Your task to perform on an android device: choose inbox layout in the gmail app Image 0: 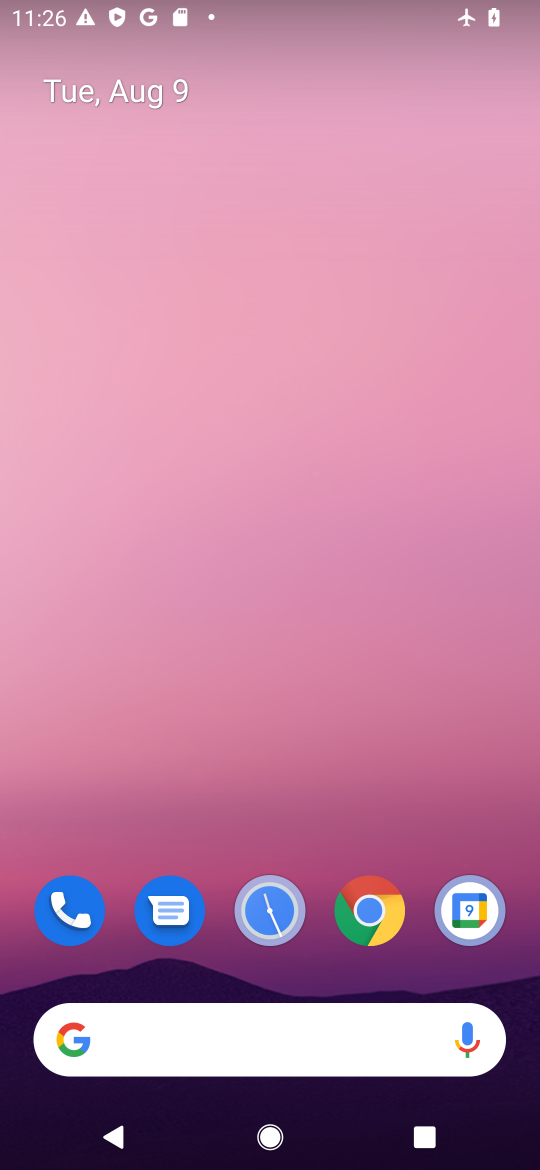
Step 0: press home button
Your task to perform on an android device: choose inbox layout in the gmail app Image 1: 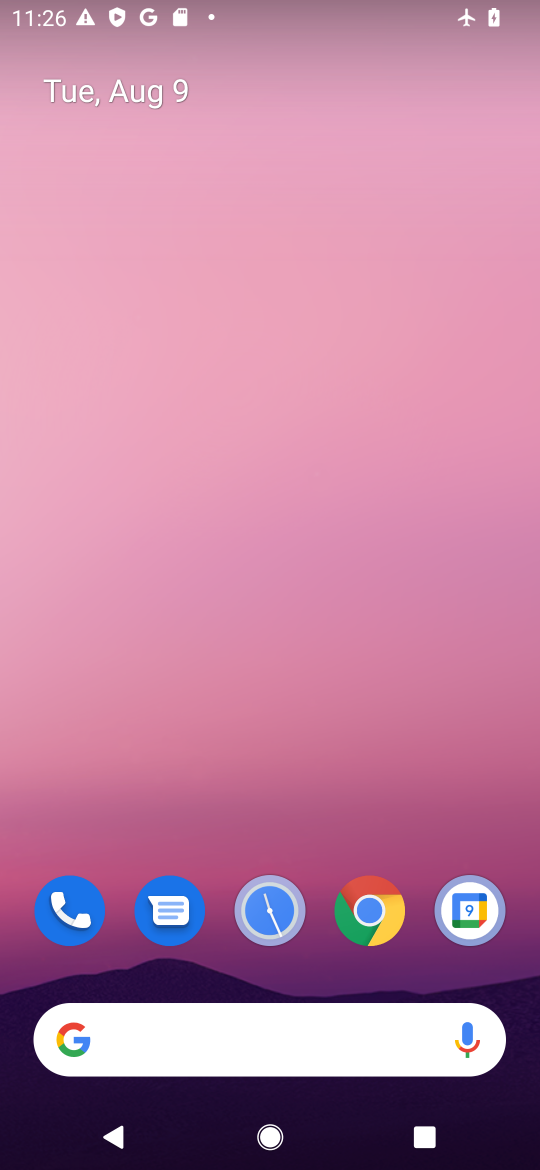
Step 1: drag from (110, 676) to (342, 78)
Your task to perform on an android device: choose inbox layout in the gmail app Image 2: 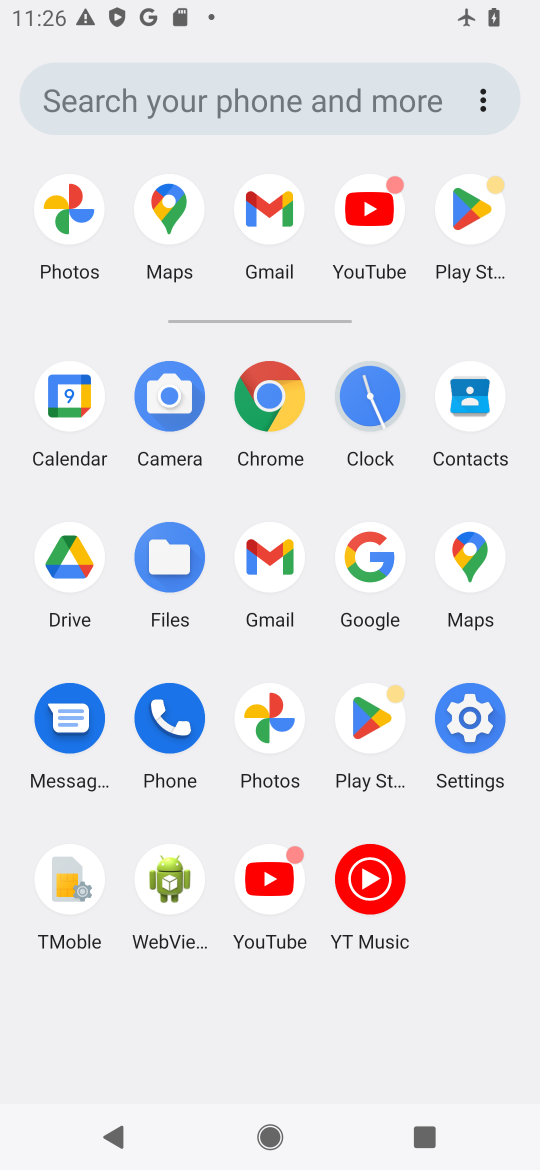
Step 2: click (284, 569)
Your task to perform on an android device: choose inbox layout in the gmail app Image 3: 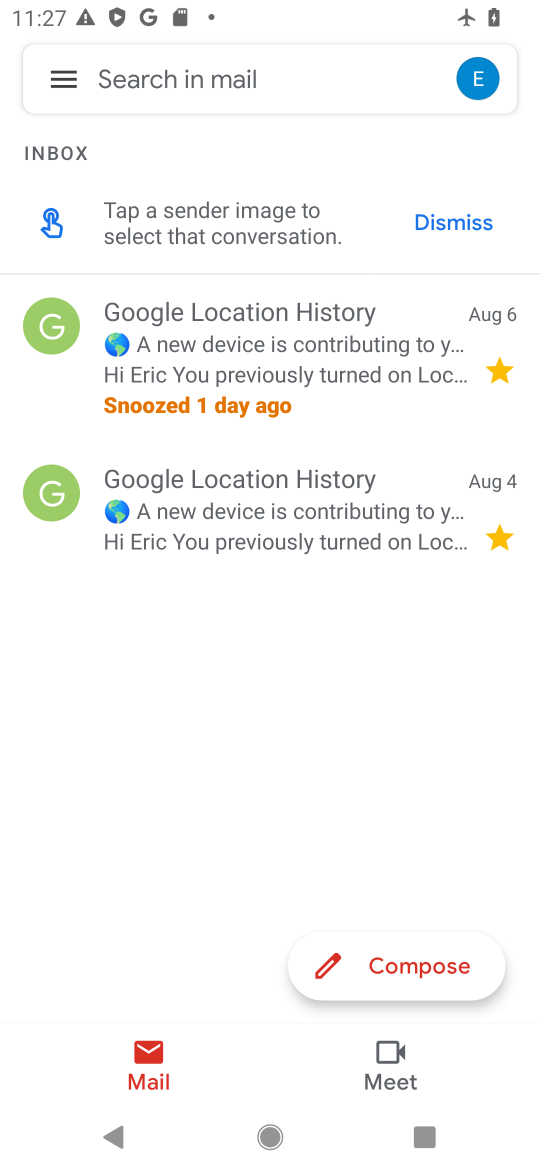
Step 3: press home button
Your task to perform on an android device: choose inbox layout in the gmail app Image 4: 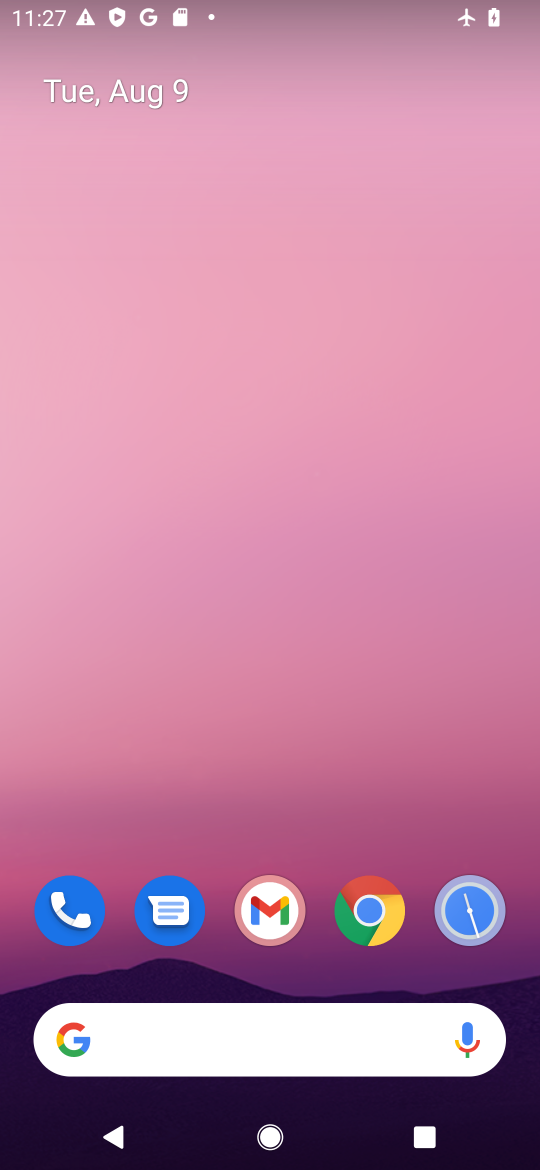
Step 4: drag from (92, 719) to (297, 203)
Your task to perform on an android device: choose inbox layout in the gmail app Image 5: 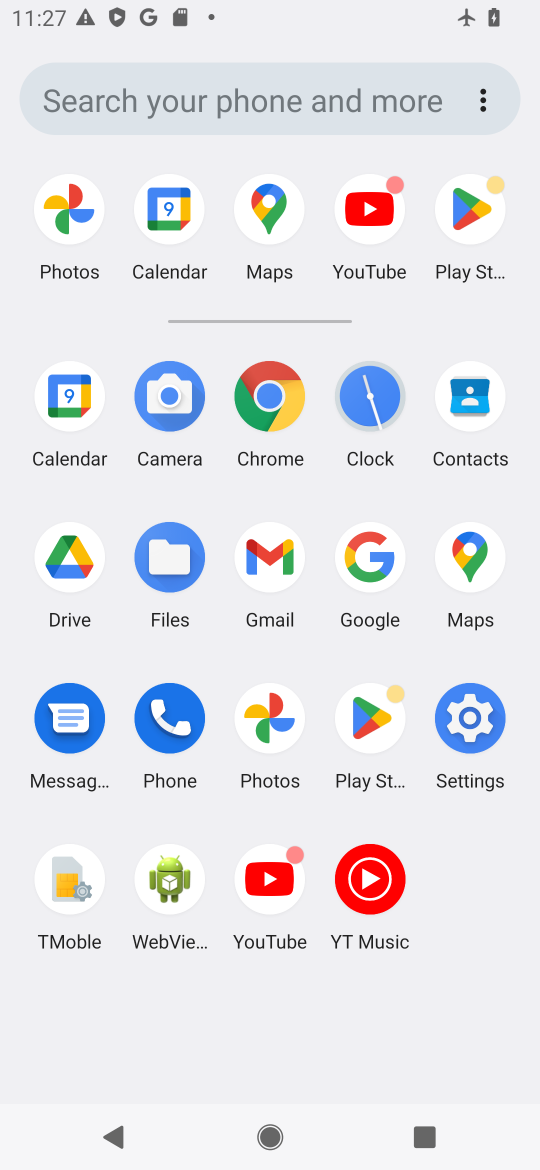
Step 5: click (284, 559)
Your task to perform on an android device: choose inbox layout in the gmail app Image 6: 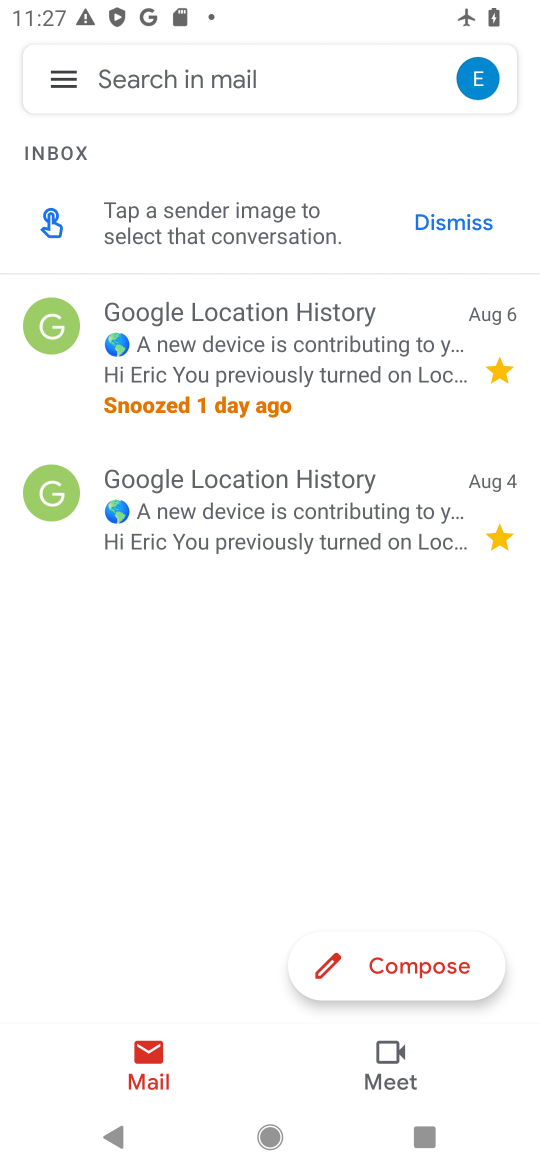
Step 6: click (60, 79)
Your task to perform on an android device: choose inbox layout in the gmail app Image 7: 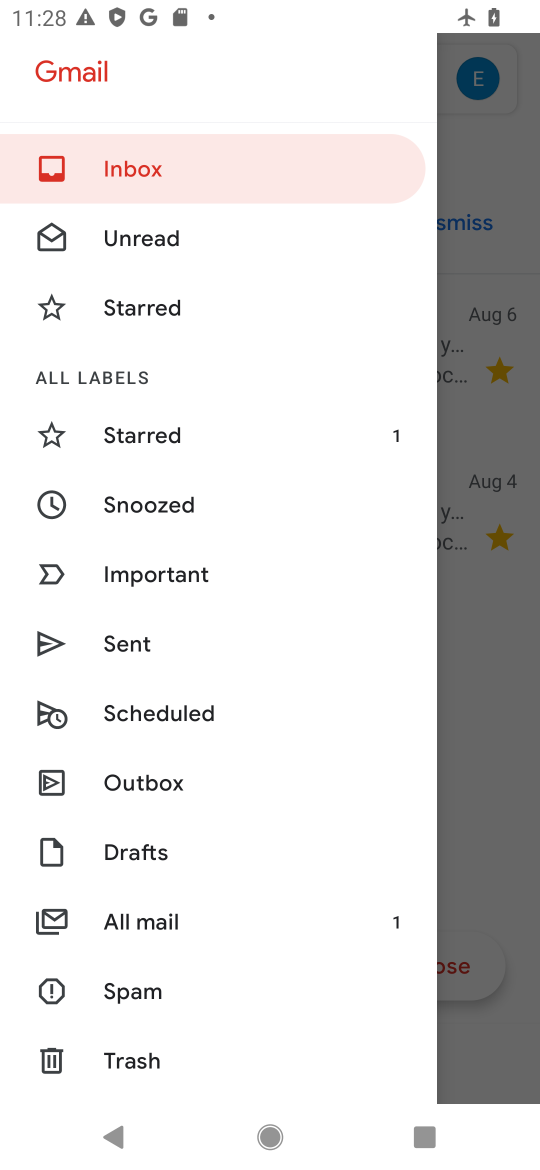
Step 7: task complete